Your task to perform on an android device: Open display settings Image 0: 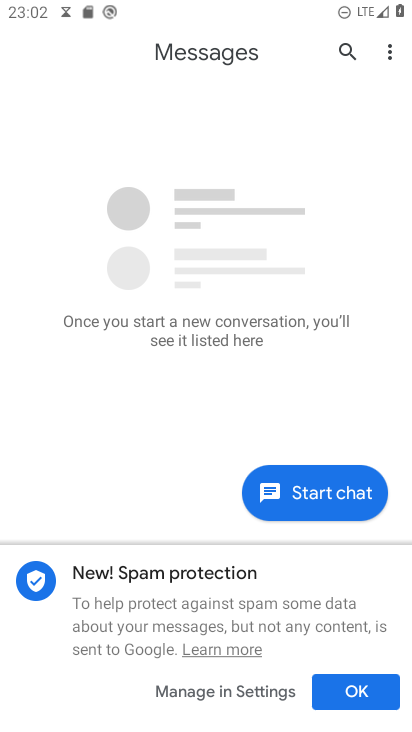
Step 0: press home button
Your task to perform on an android device: Open display settings Image 1: 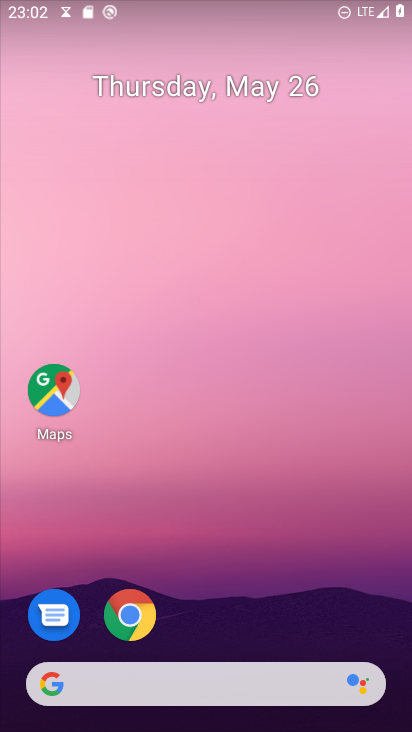
Step 1: drag from (212, 589) to (205, 277)
Your task to perform on an android device: Open display settings Image 2: 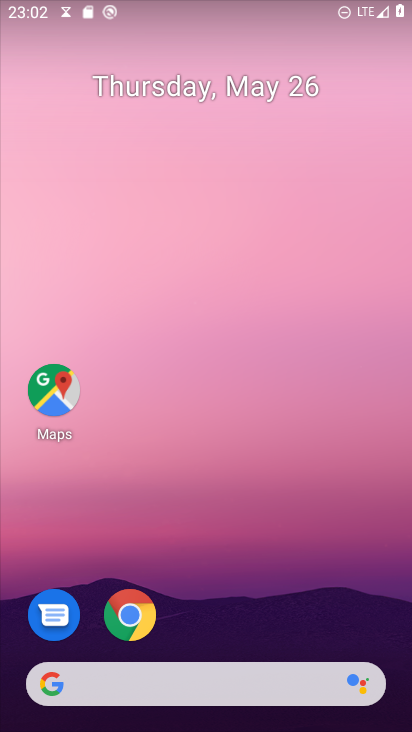
Step 2: drag from (199, 519) to (171, 128)
Your task to perform on an android device: Open display settings Image 3: 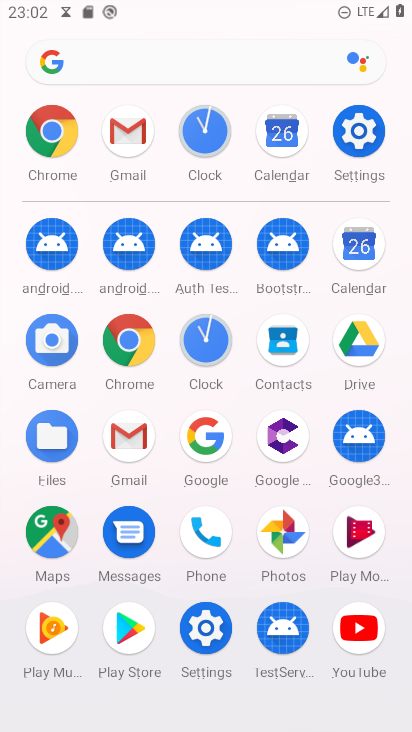
Step 3: click (355, 134)
Your task to perform on an android device: Open display settings Image 4: 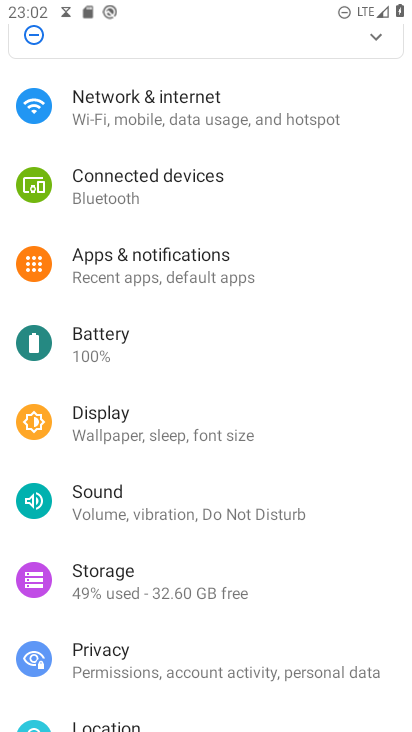
Step 4: click (136, 428)
Your task to perform on an android device: Open display settings Image 5: 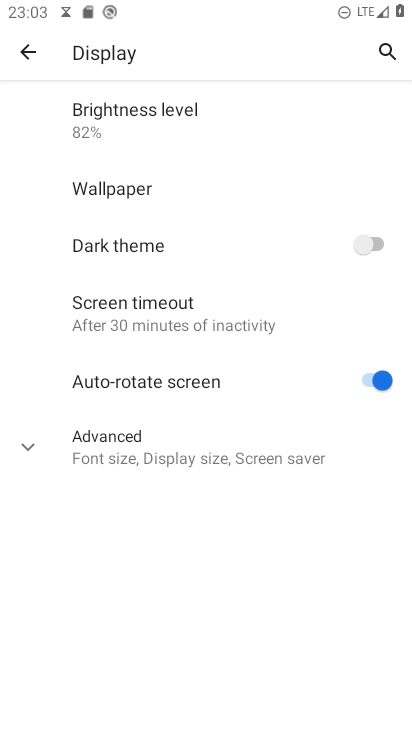
Step 5: task complete